Your task to perform on an android device: Open the calendar and show me this week's events? Image 0: 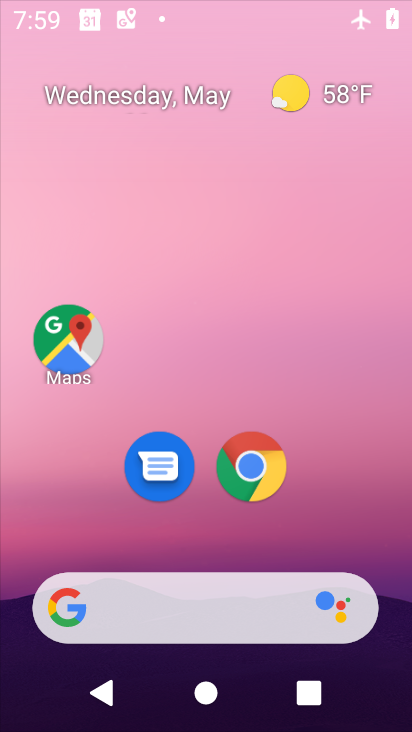
Step 0: press home button
Your task to perform on an android device: Open the calendar and show me this week's events? Image 1: 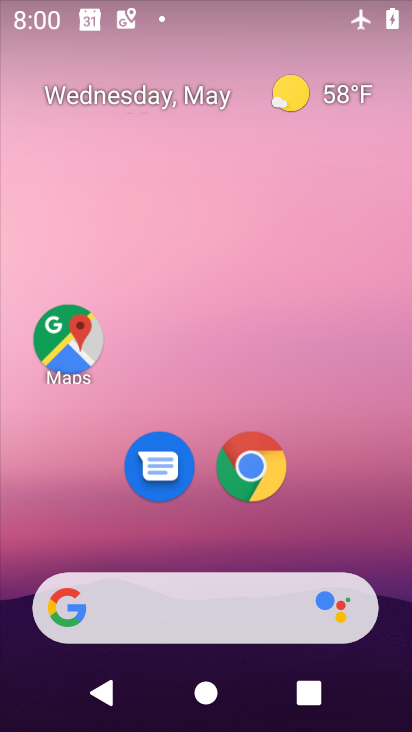
Step 1: drag from (207, 553) to (247, 132)
Your task to perform on an android device: Open the calendar and show me this week's events? Image 2: 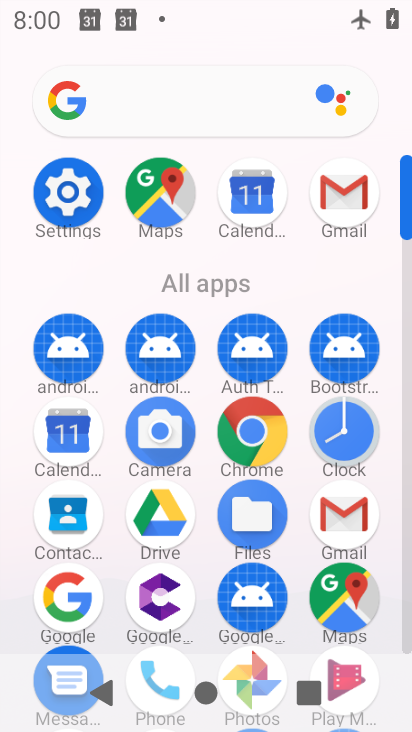
Step 2: click (71, 439)
Your task to perform on an android device: Open the calendar and show me this week's events? Image 3: 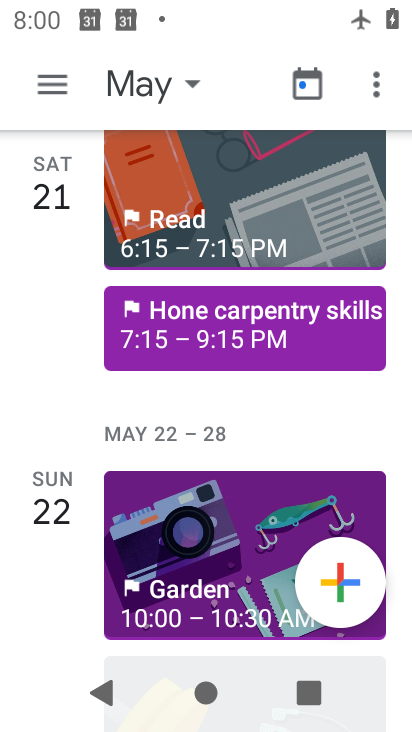
Step 3: drag from (56, 204) to (36, 722)
Your task to perform on an android device: Open the calendar and show me this week's events? Image 4: 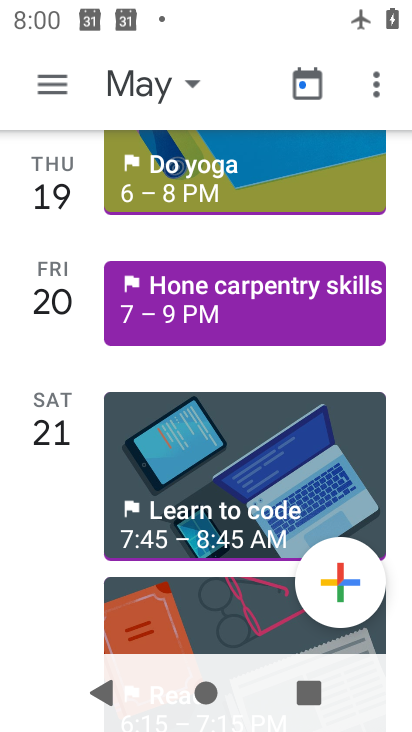
Step 4: drag from (52, 215) to (59, 711)
Your task to perform on an android device: Open the calendar and show me this week's events? Image 5: 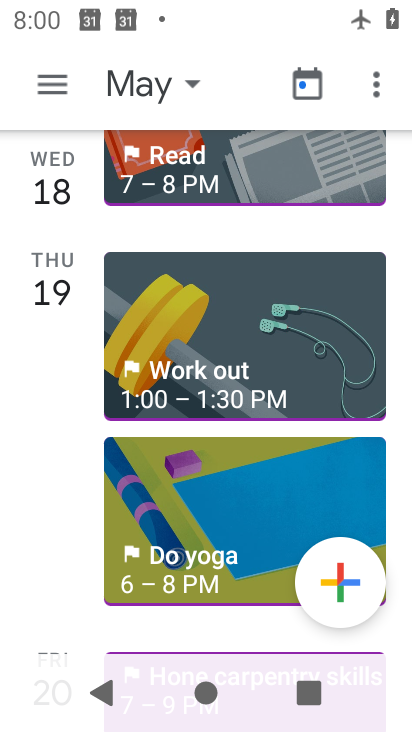
Step 5: drag from (53, 202) to (65, 726)
Your task to perform on an android device: Open the calendar and show me this week's events? Image 6: 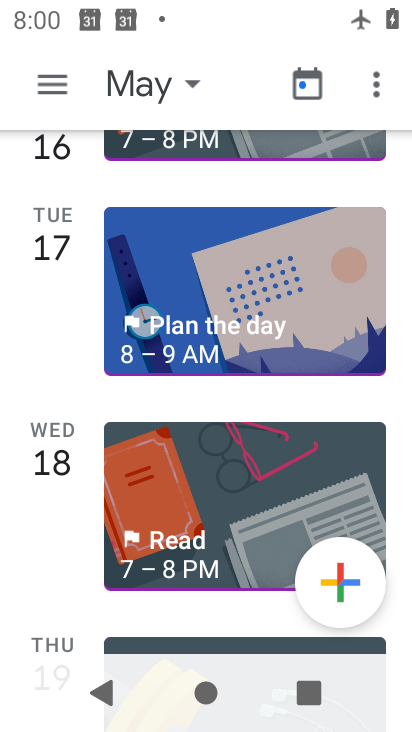
Step 6: drag from (70, 179) to (84, 723)
Your task to perform on an android device: Open the calendar and show me this week's events? Image 7: 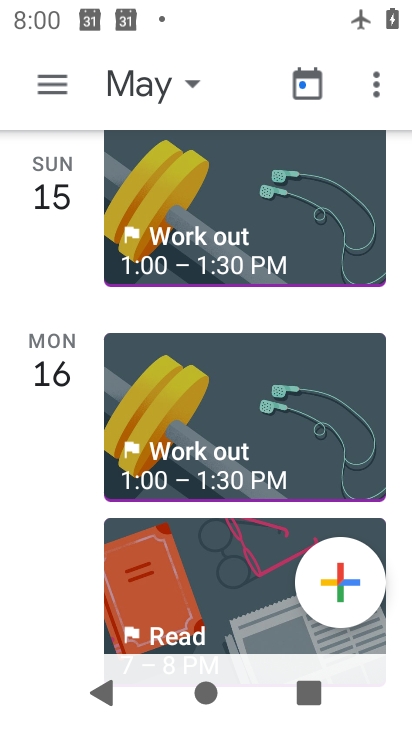
Step 7: drag from (60, 174) to (63, 730)
Your task to perform on an android device: Open the calendar and show me this week's events? Image 8: 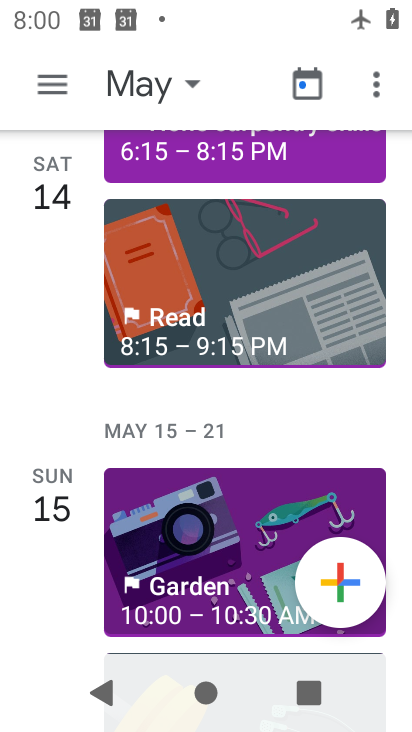
Step 8: drag from (55, 199) to (37, 729)
Your task to perform on an android device: Open the calendar and show me this week's events? Image 9: 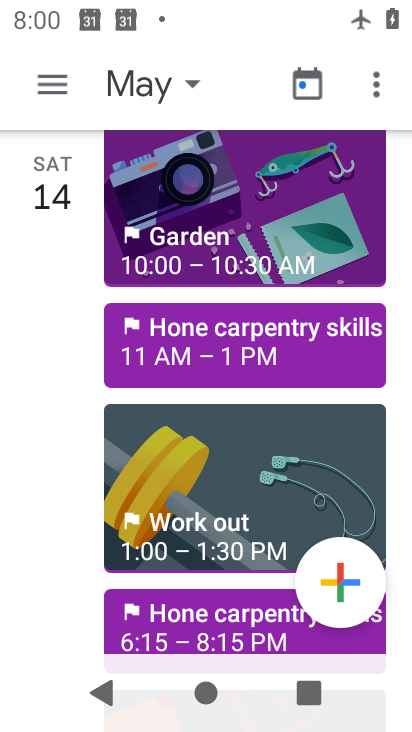
Step 9: drag from (58, 187) to (67, 727)
Your task to perform on an android device: Open the calendar and show me this week's events? Image 10: 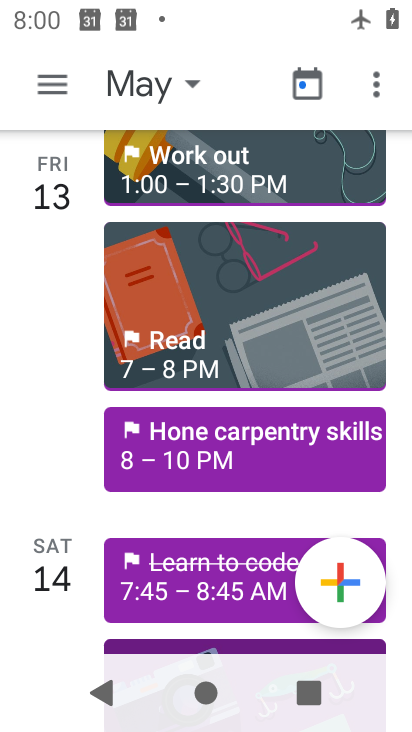
Step 10: drag from (64, 189) to (71, 720)
Your task to perform on an android device: Open the calendar and show me this week's events? Image 11: 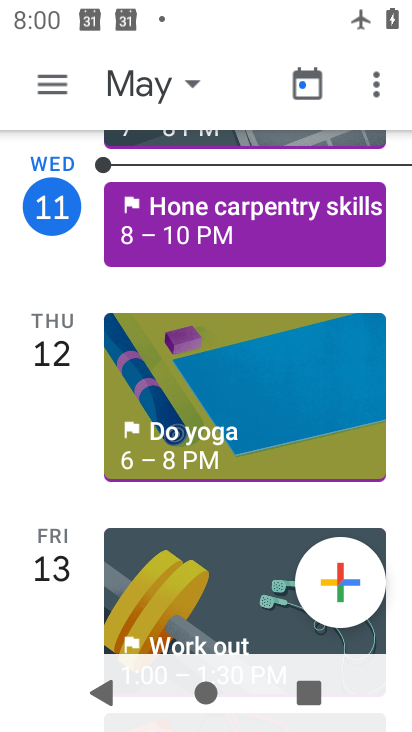
Step 11: drag from (68, 297) to (87, 346)
Your task to perform on an android device: Open the calendar and show me this week's events? Image 12: 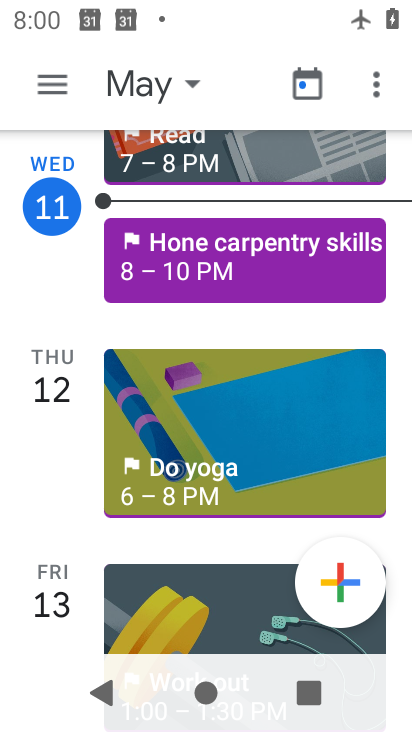
Step 12: click (90, 292)
Your task to perform on an android device: Open the calendar and show me this week's events? Image 13: 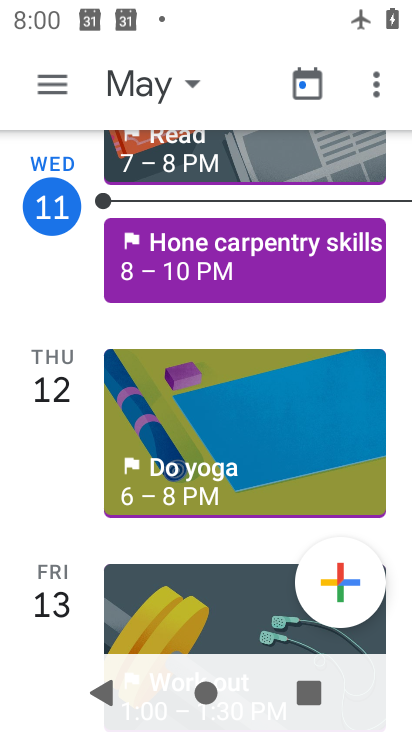
Step 13: task complete